Your task to perform on an android device: Clear all items from cart on ebay. Image 0: 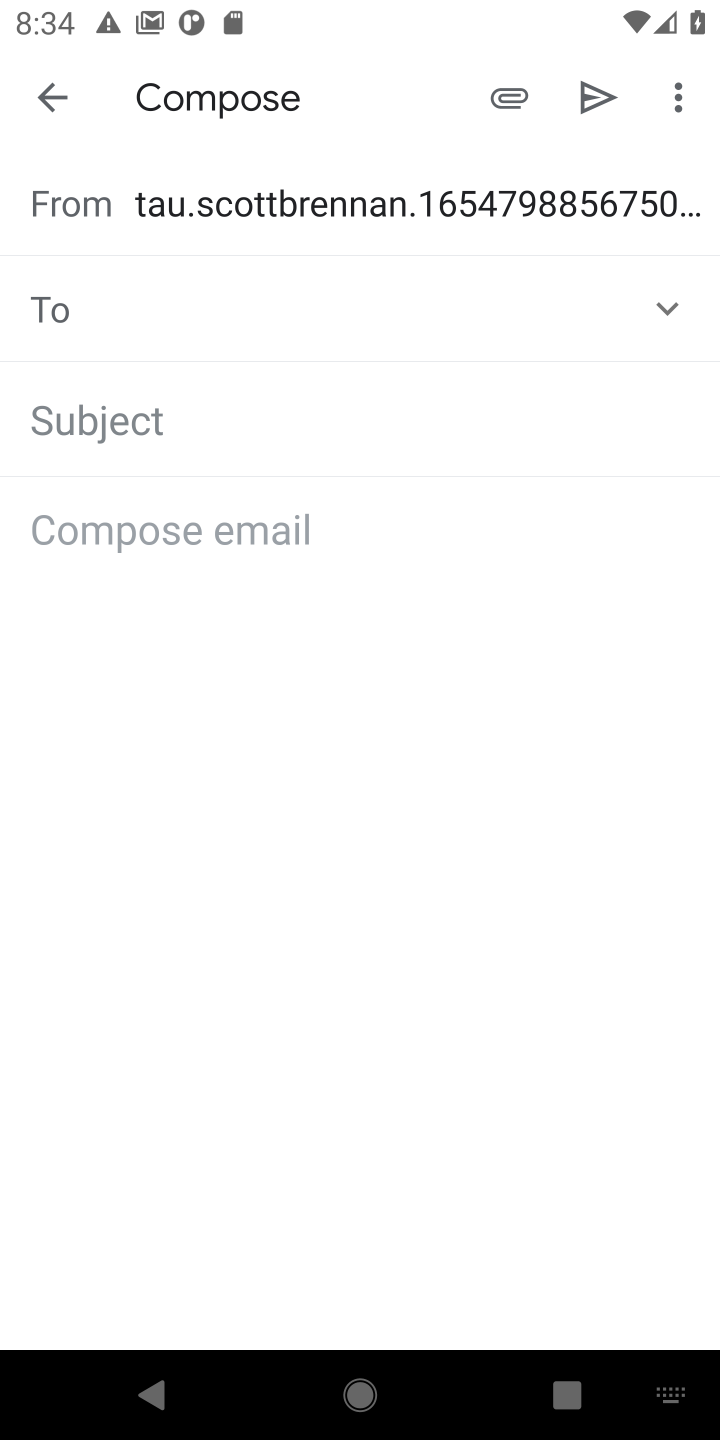
Step 0: press home button
Your task to perform on an android device: Clear all items from cart on ebay. Image 1: 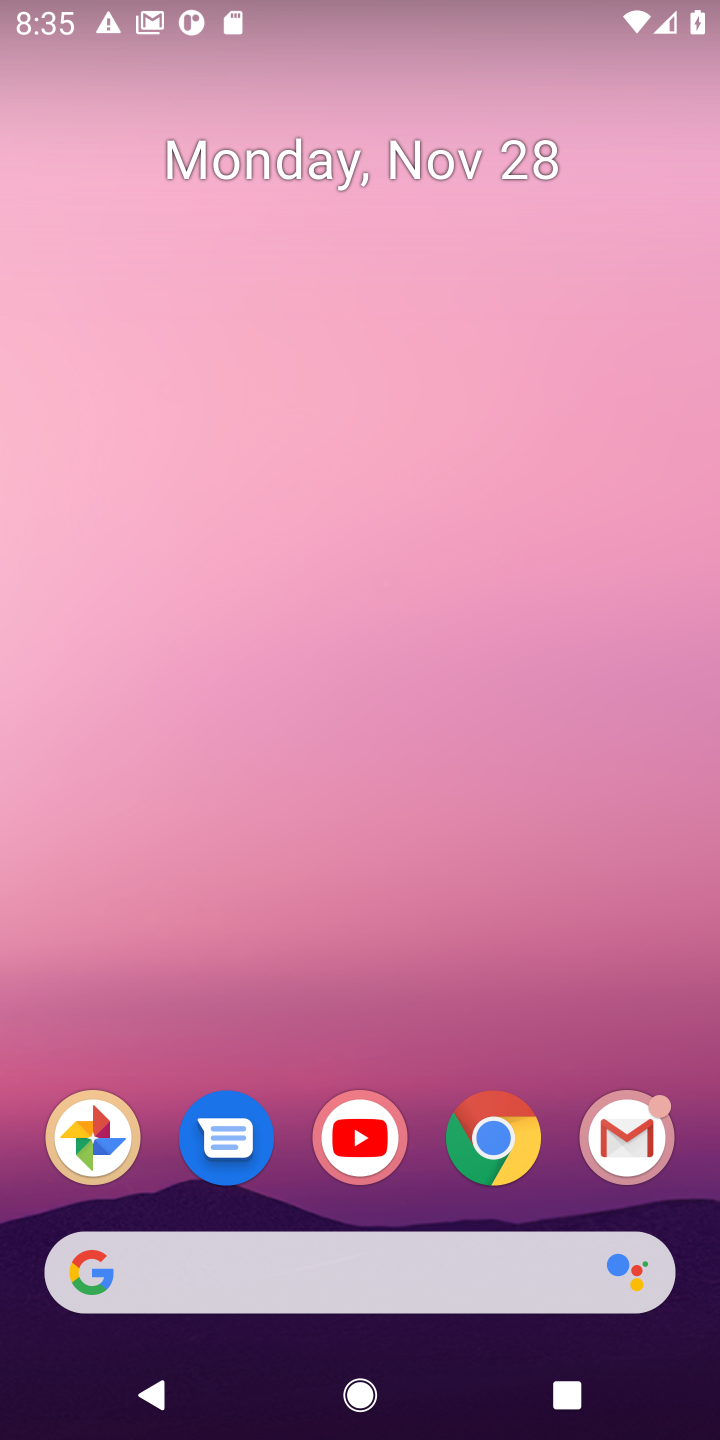
Step 1: click (497, 1136)
Your task to perform on an android device: Clear all items from cart on ebay. Image 2: 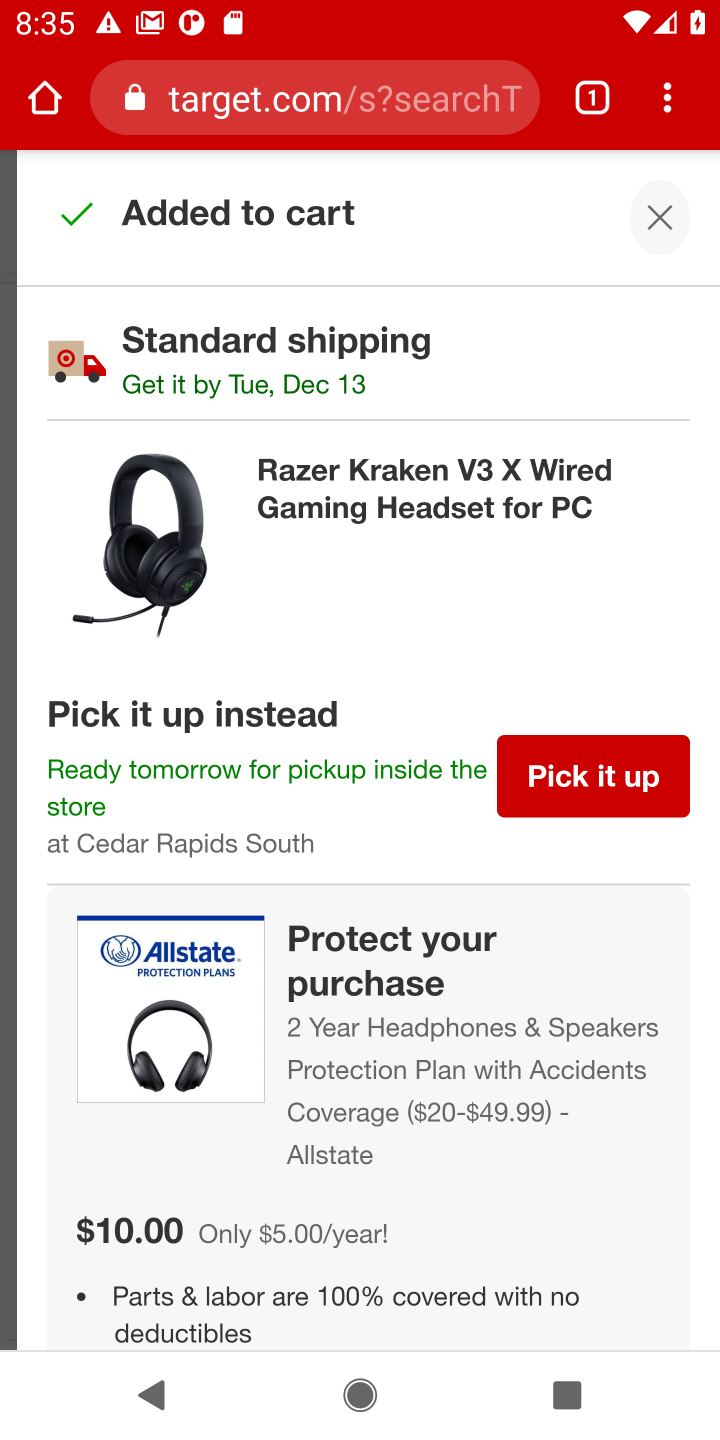
Step 2: click (274, 87)
Your task to perform on an android device: Clear all items from cart on ebay. Image 3: 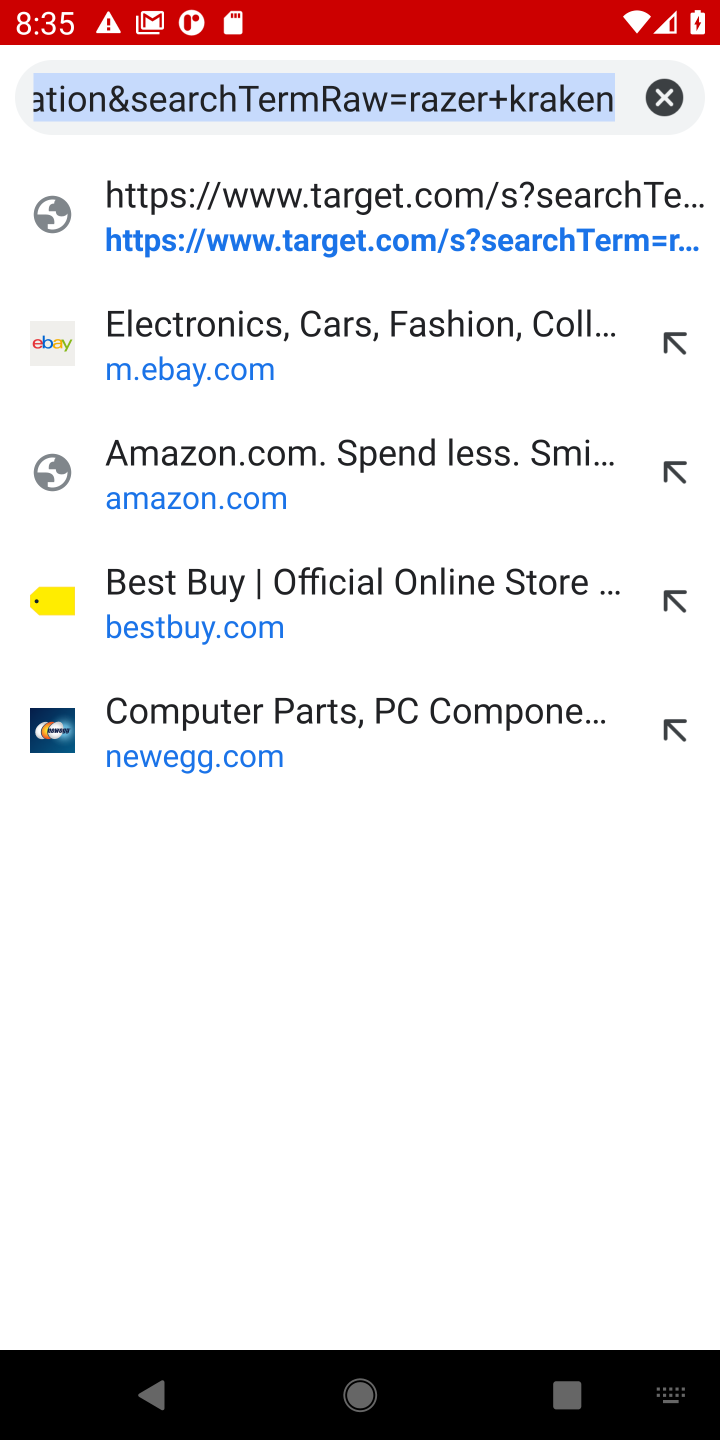
Step 3: click (167, 349)
Your task to perform on an android device: Clear all items from cart on ebay. Image 4: 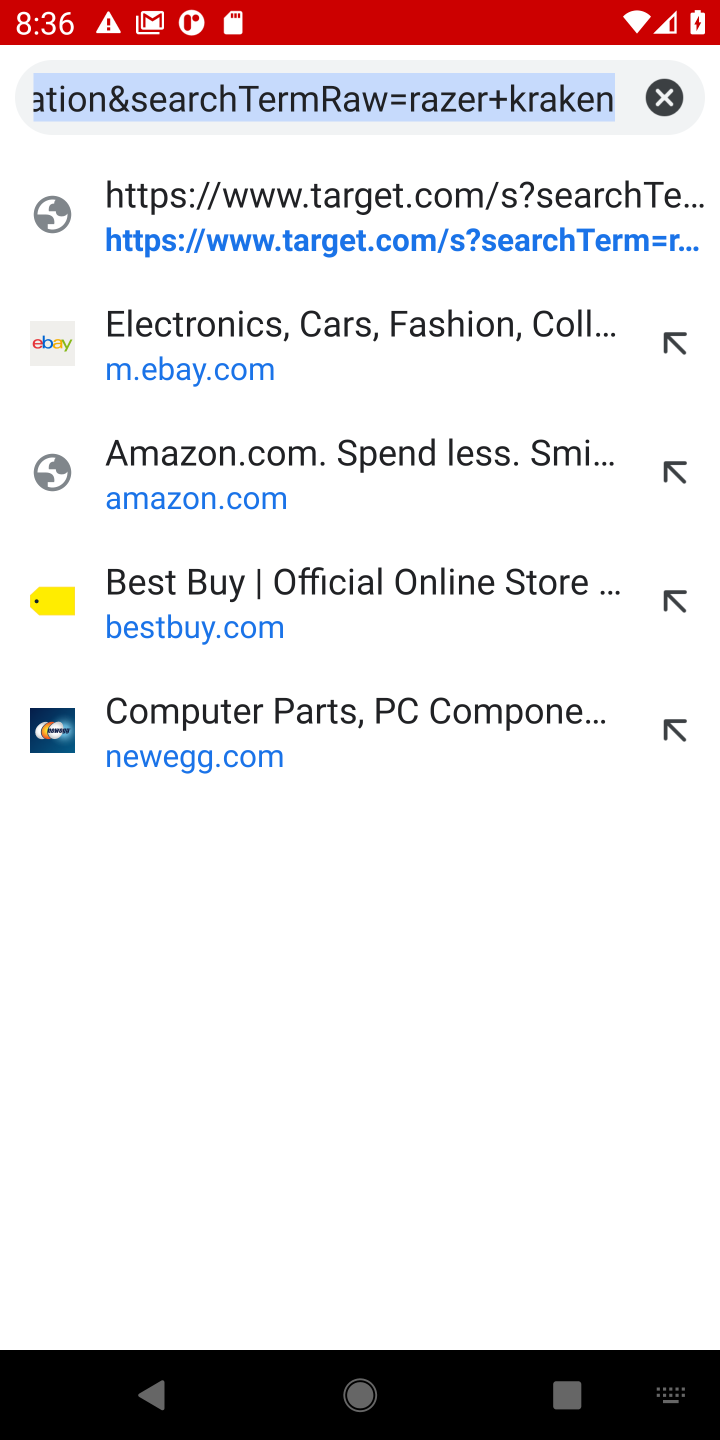
Step 4: click (145, 369)
Your task to perform on an android device: Clear all items from cart on ebay. Image 5: 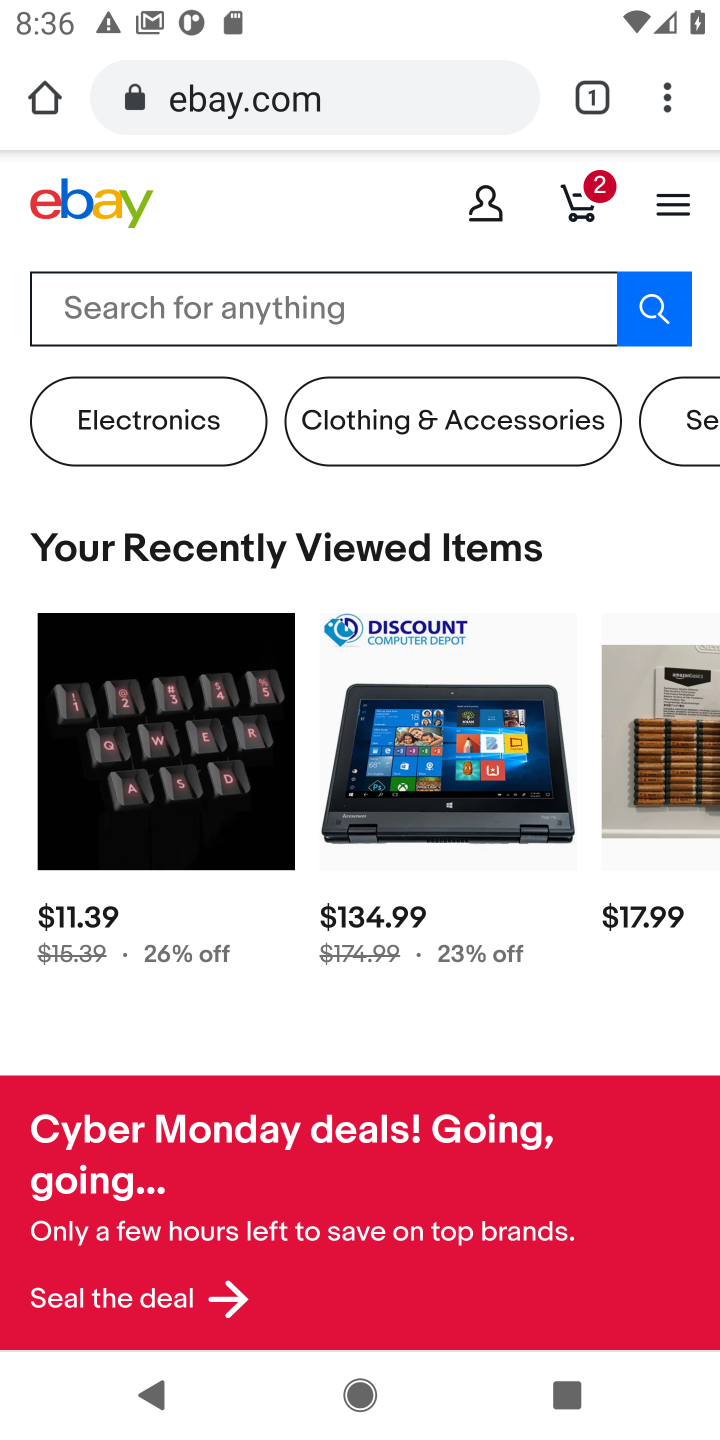
Step 5: click (579, 223)
Your task to perform on an android device: Clear all items from cart on ebay. Image 6: 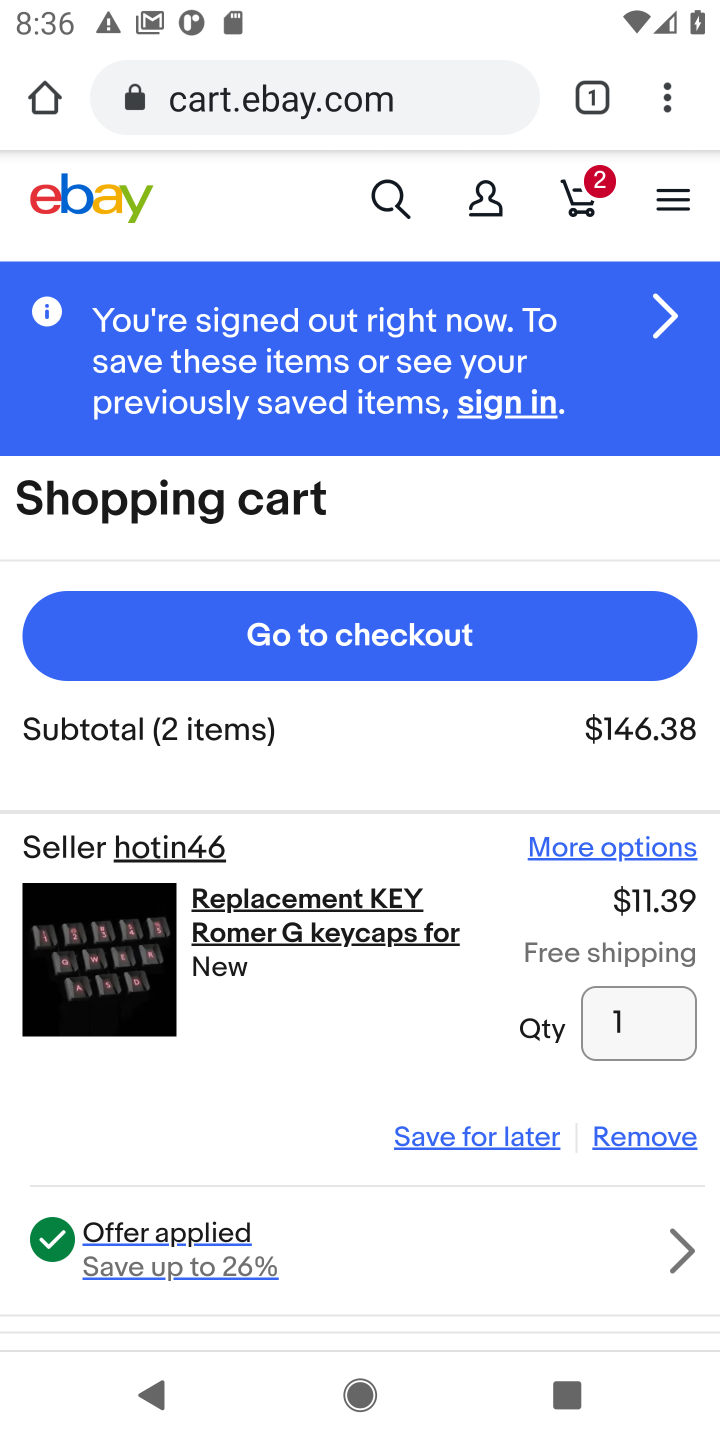
Step 6: click (656, 1151)
Your task to perform on an android device: Clear all items from cart on ebay. Image 7: 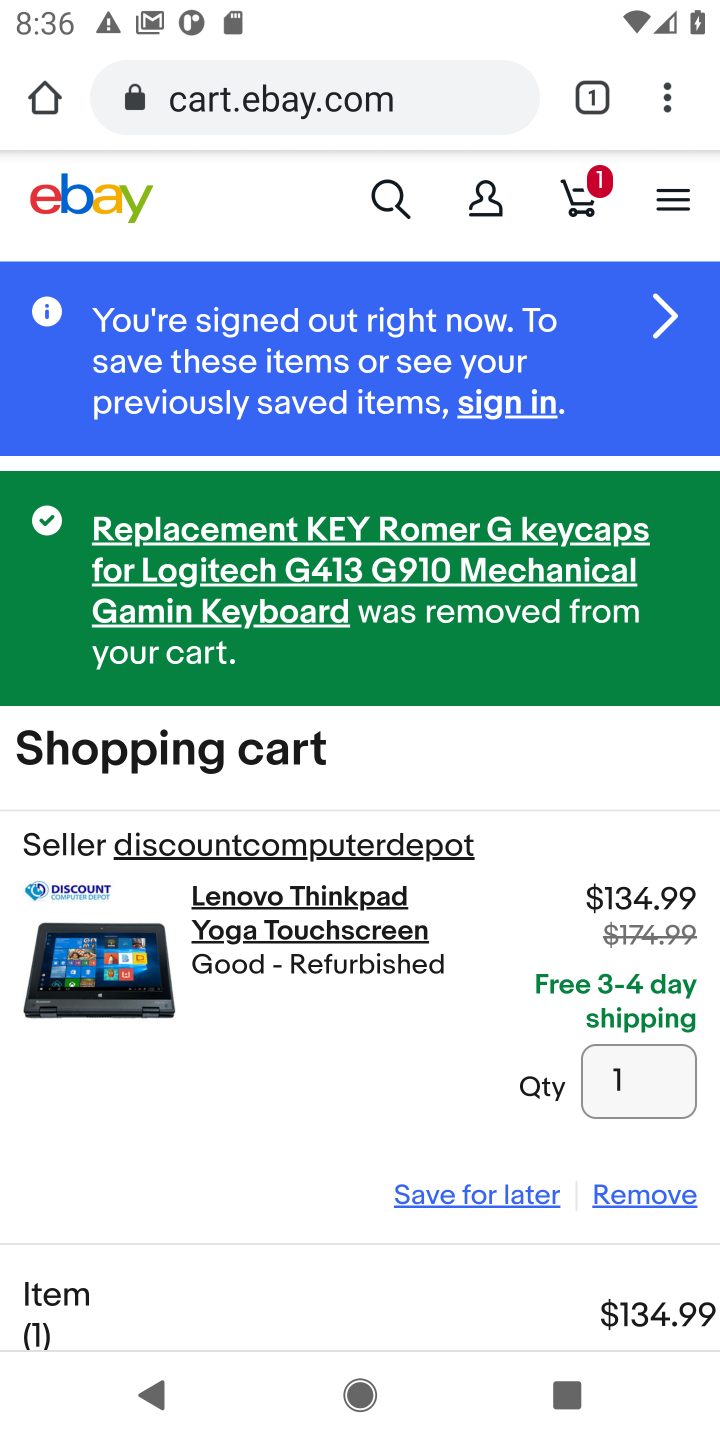
Step 7: click (653, 1194)
Your task to perform on an android device: Clear all items from cart on ebay. Image 8: 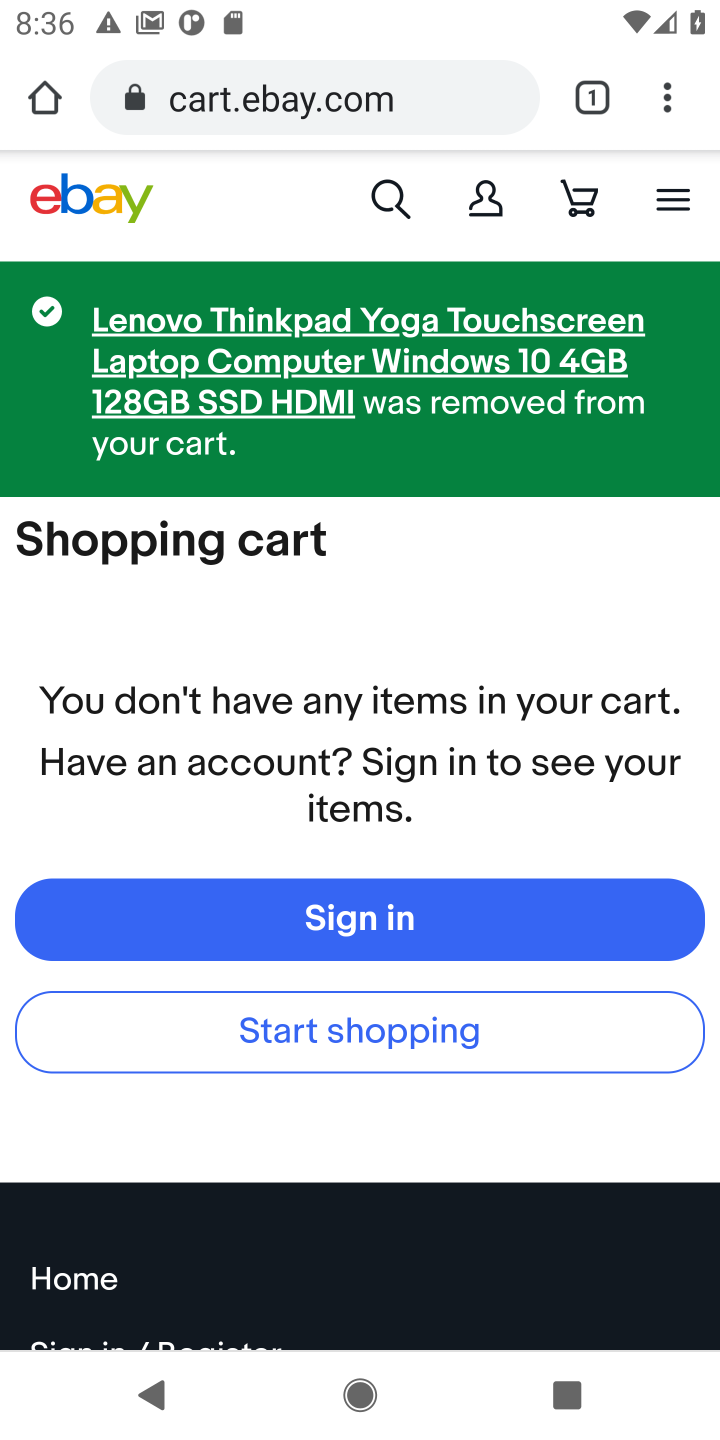
Step 8: task complete